Your task to perform on an android device: open device folders in google photos Image 0: 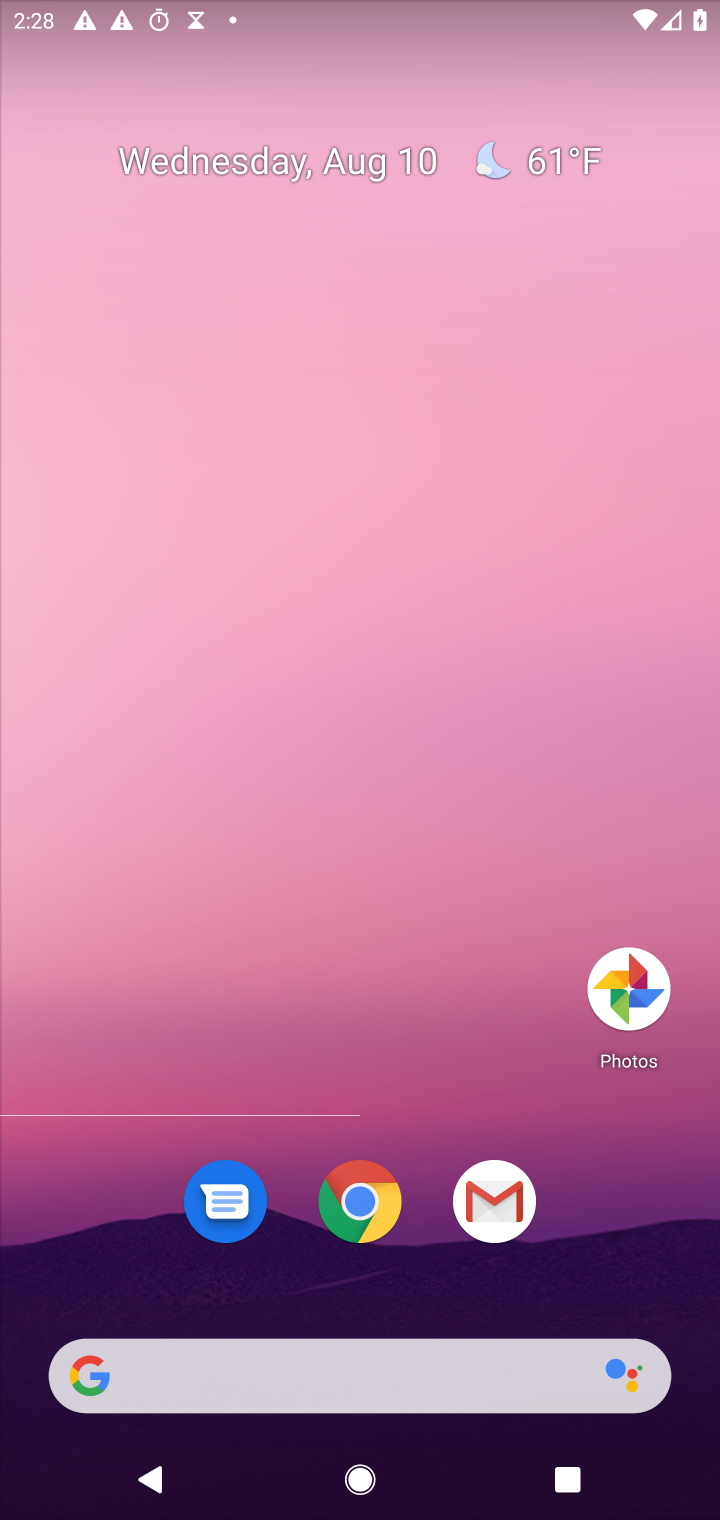
Step 0: click (648, 991)
Your task to perform on an android device: open device folders in google photos Image 1: 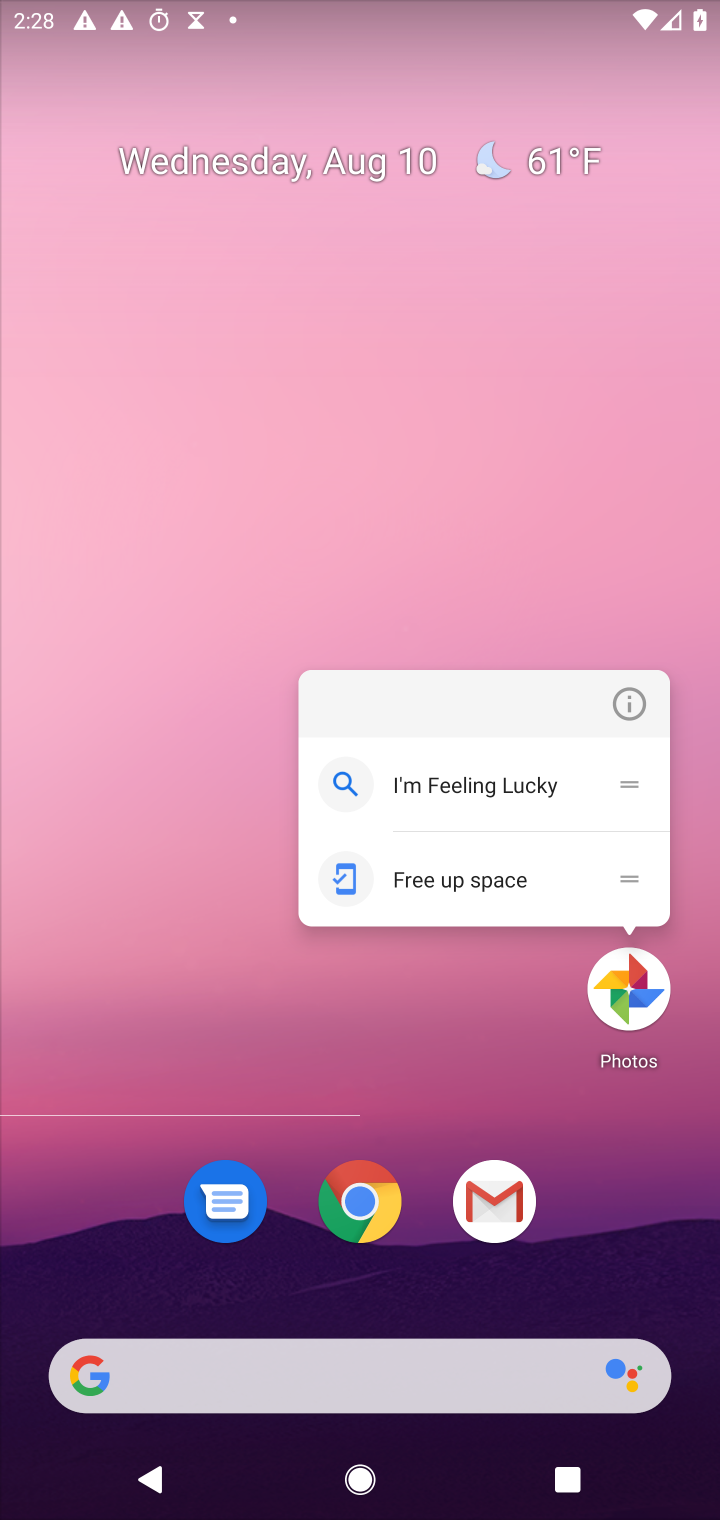
Step 1: click (648, 991)
Your task to perform on an android device: open device folders in google photos Image 2: 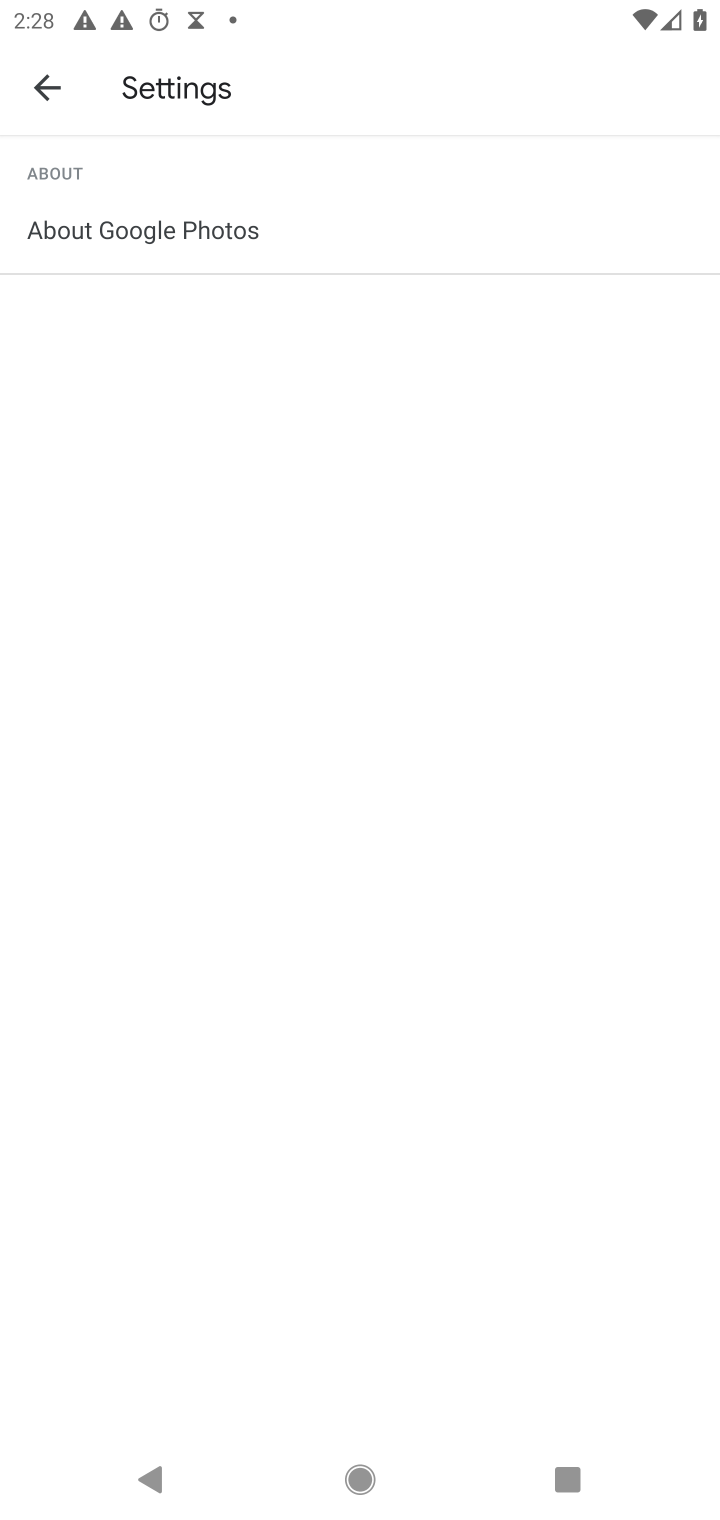
Step 2: press back button
Your task to perform on an android device: open device folders in google photos Image 3: 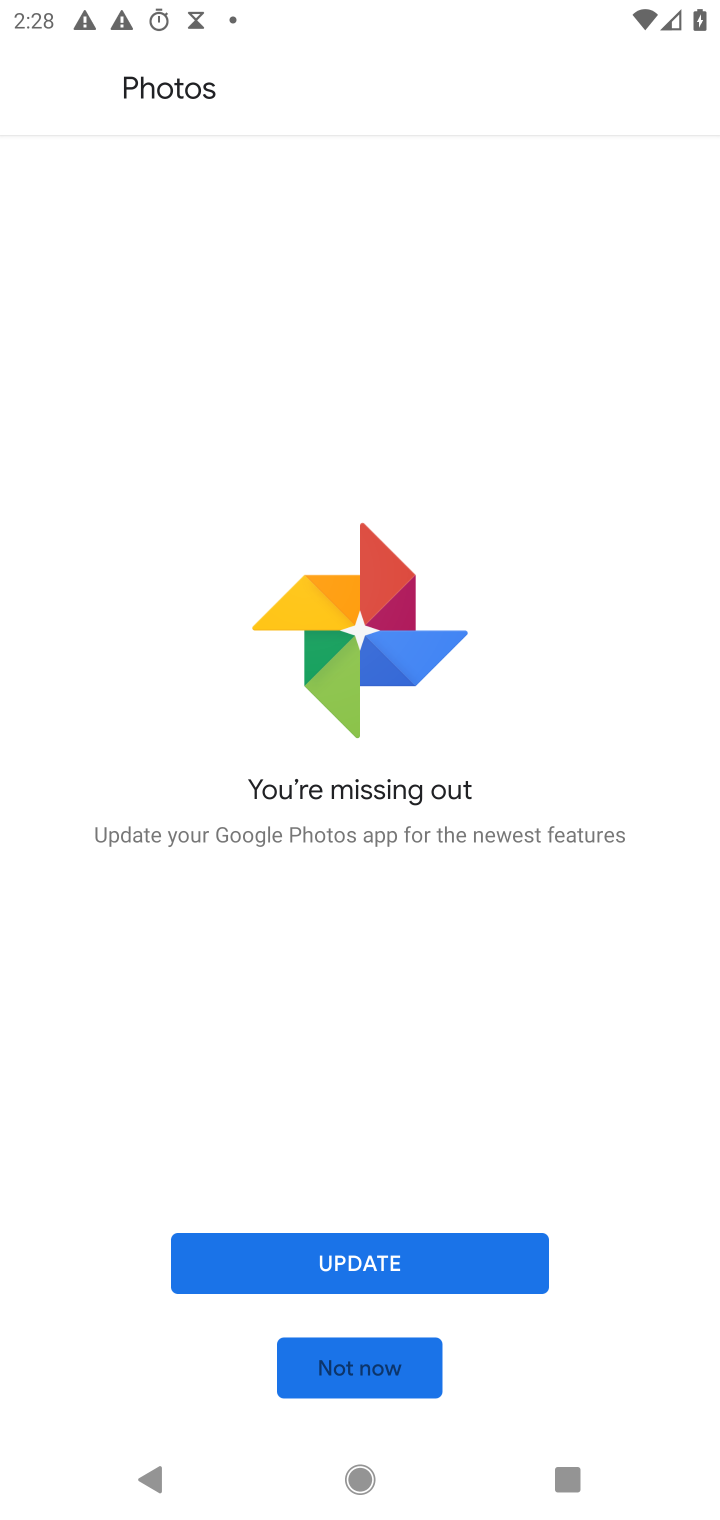
Step 3: click (231, 1274)
Your task to perform on an android device: open device folders in google photos Image 4: 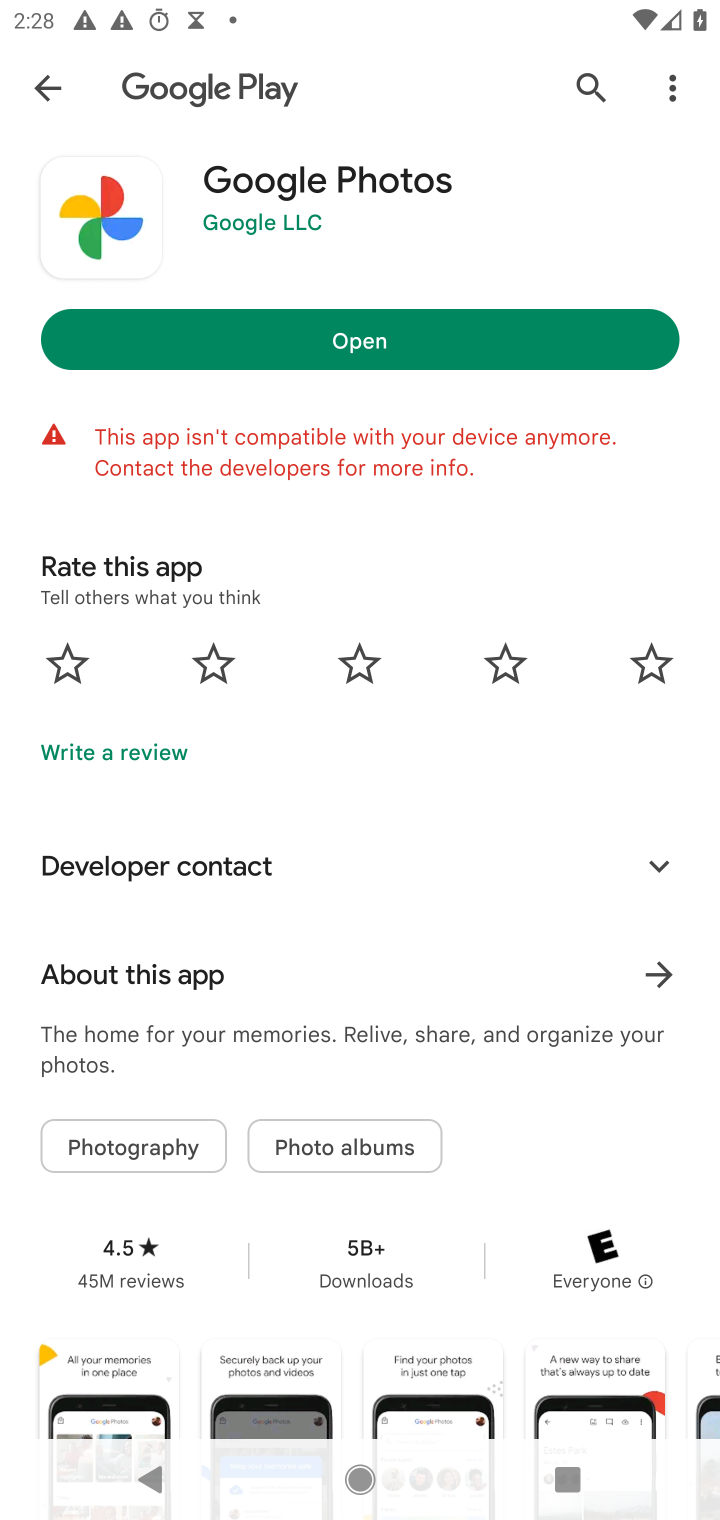
Step 4: press back button
Your task to perform on an android device: open device folders in google photos Image 5: 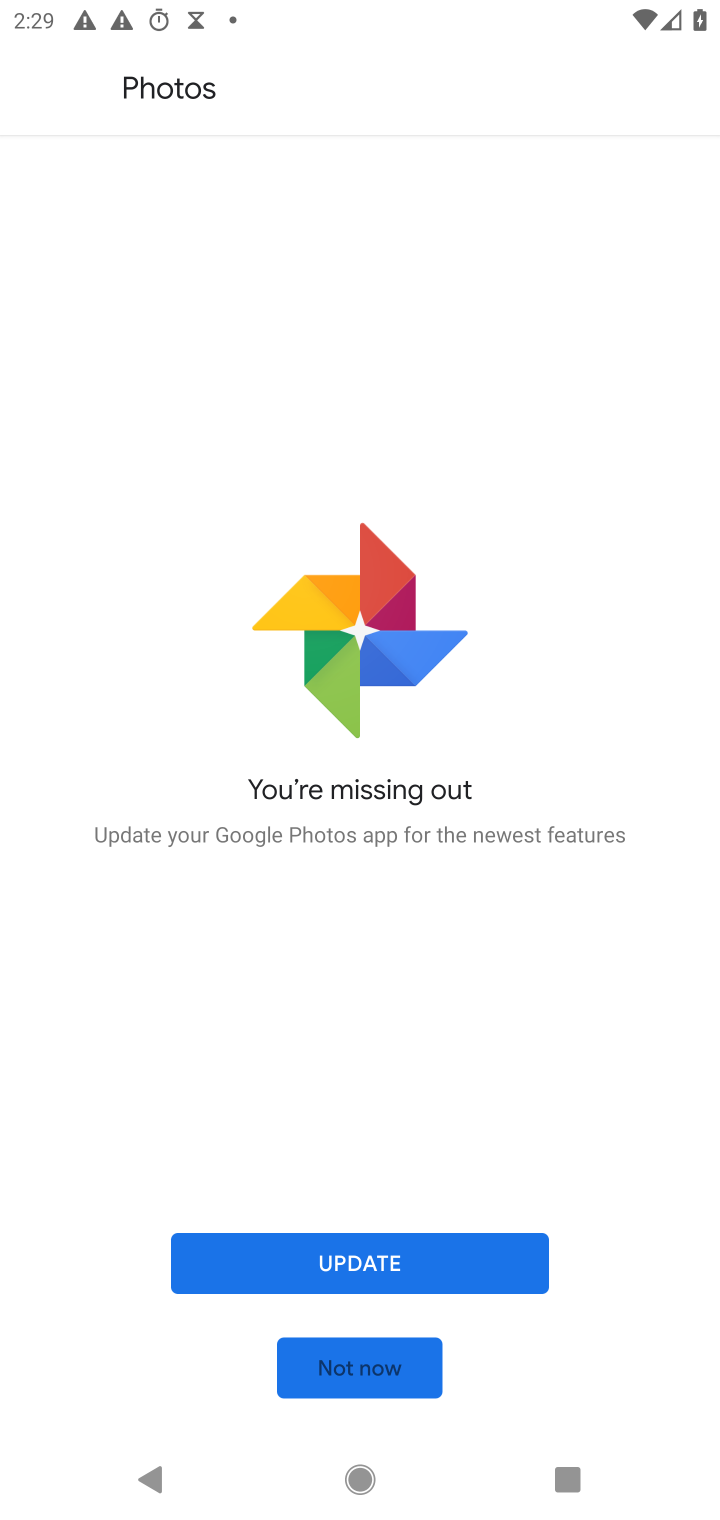
Step 5: click (304, 1377)
Your task to perform on an android device: open device folders in google photos Image 6: 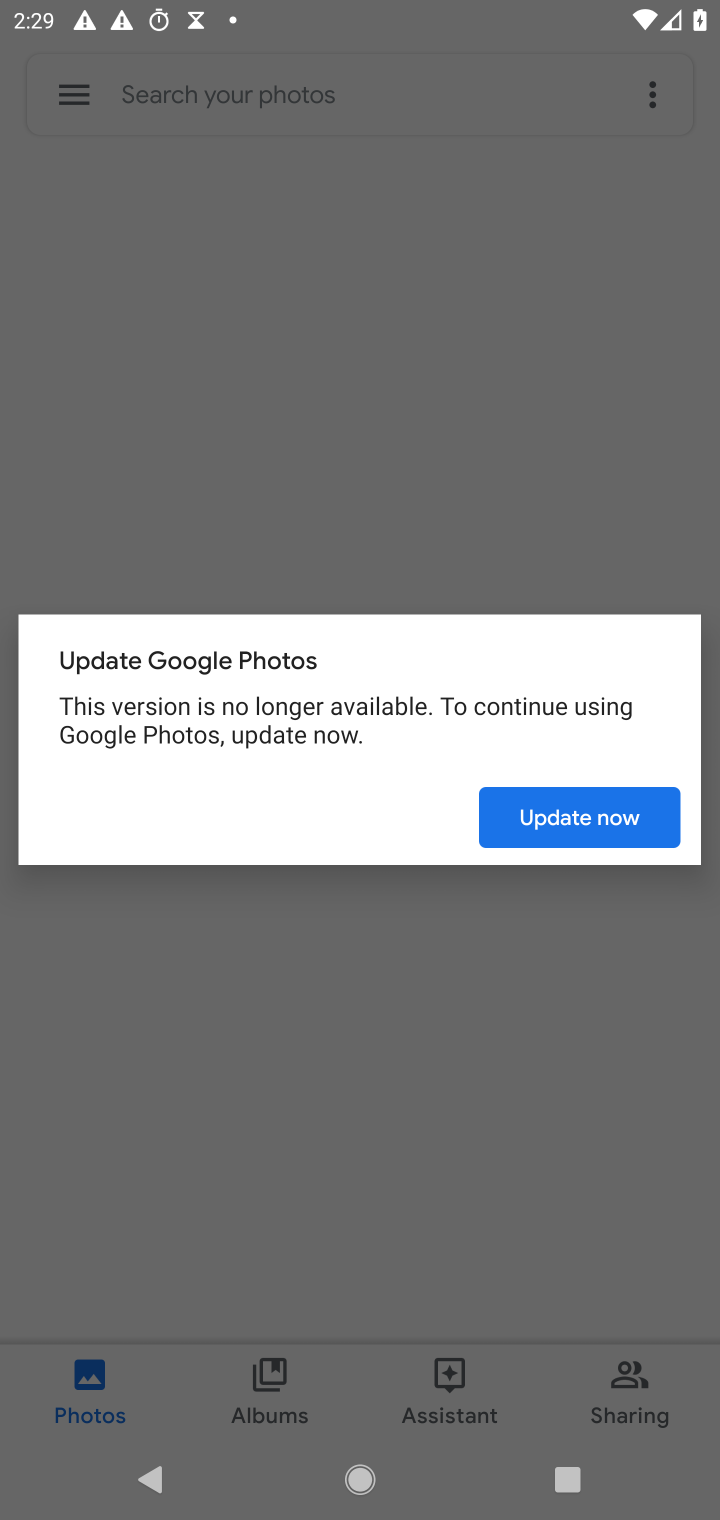
Step 6: click (511, 837)
Your task to perform on an android device: open device folders in google photos Image 7: 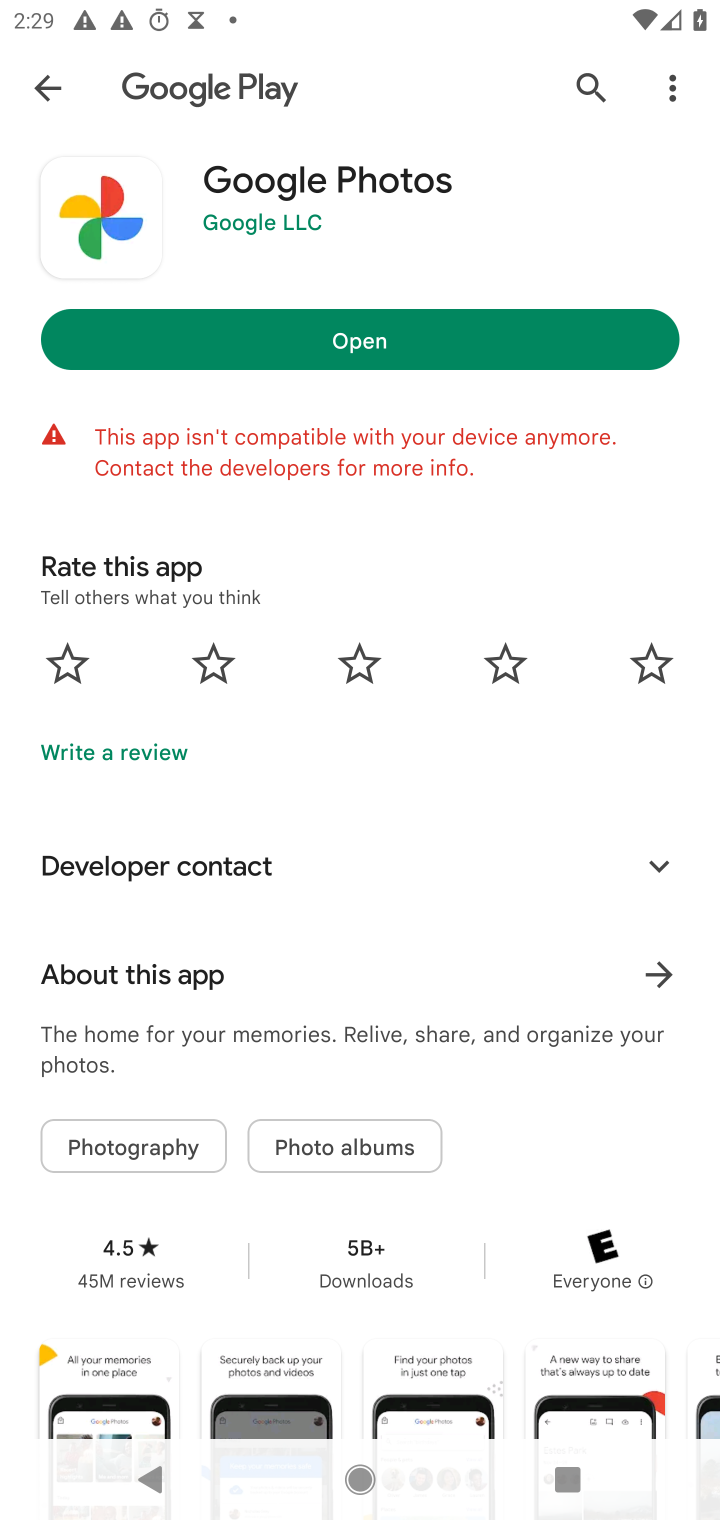
Step 7: task complete